Your task to perform on an android device: Play the last video I watched on Youtube Image 0: 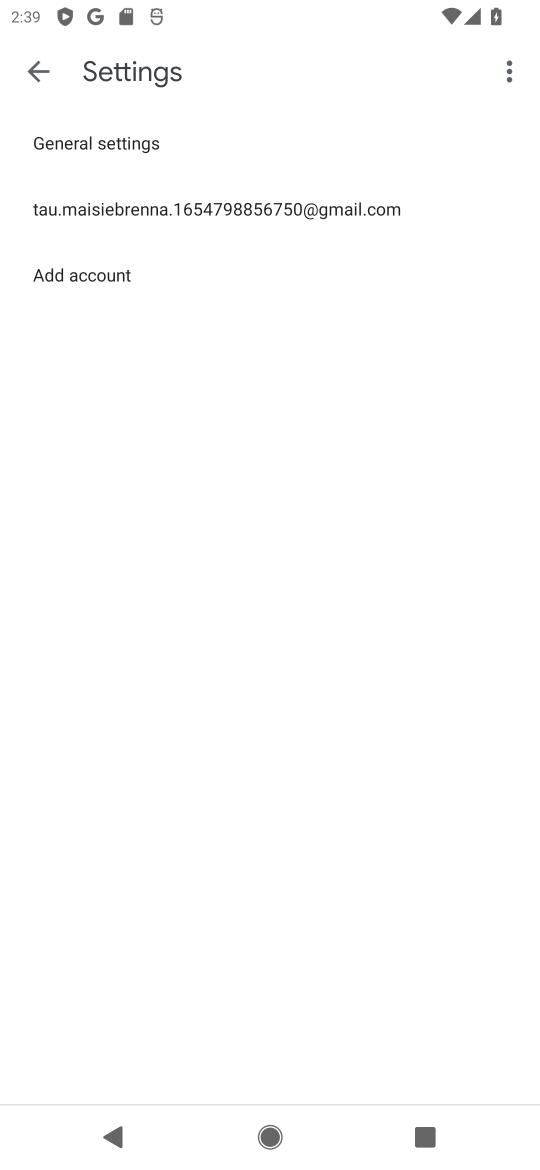
Step 0: press home button
Your task to perform on an android device: Play the last video I watched on Youtube Image 1: 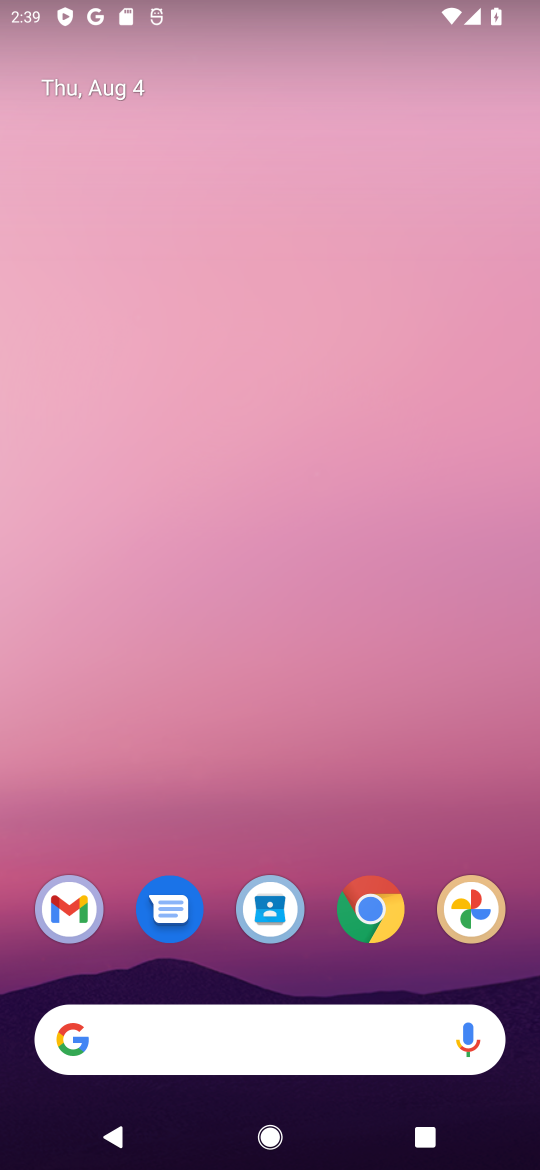
Step 1: drag from (334, 994) to (437, 229)
Your task to perform on an android device: Play the last video I watched on Youtube Image 2: 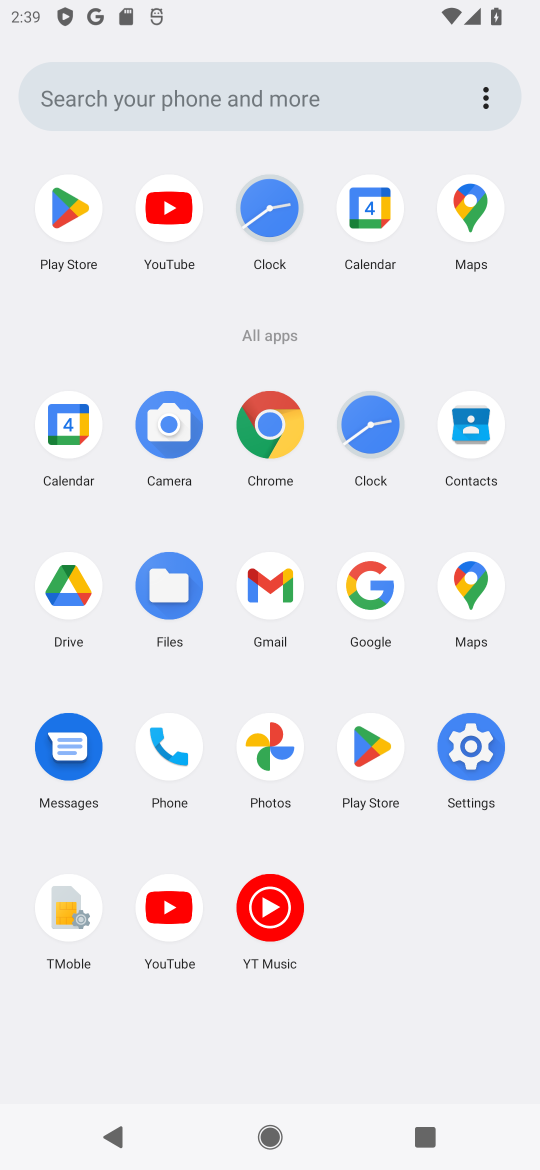
Step 2: click (170, 904)
Your task to perform on an android device: Play the last video I watched on Youtube Image 3: 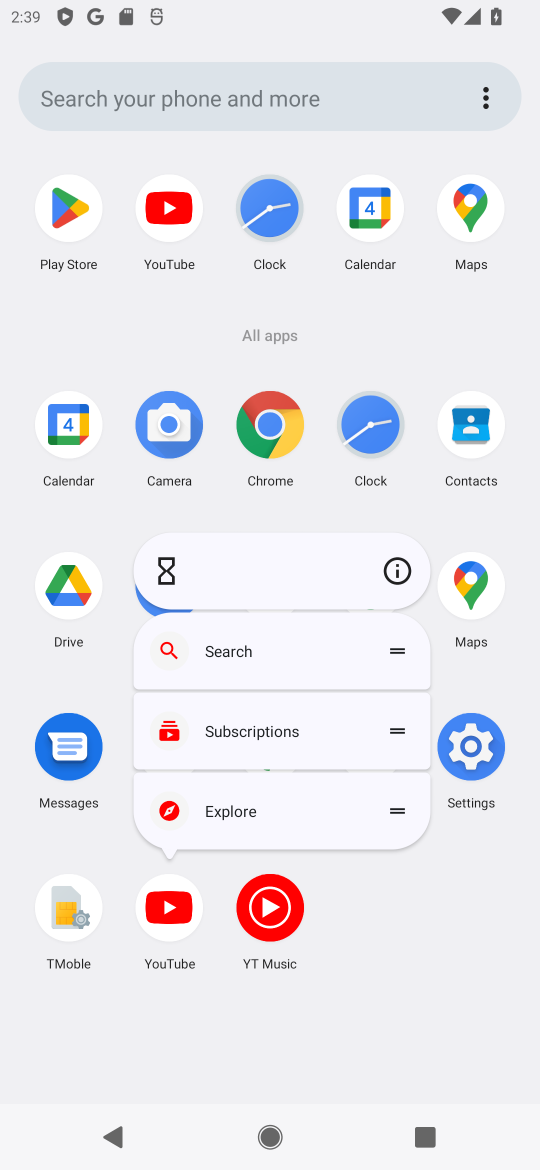
Step 3: click (166, 912)
Your task to perform on an android device: Play the last video I watched on Youtube Image 4: 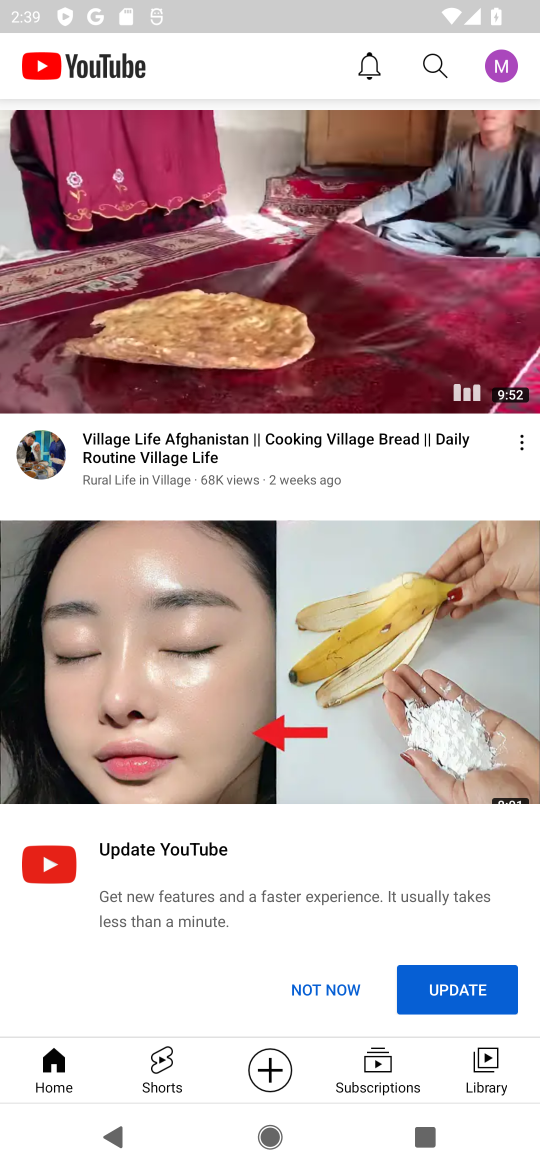
Step 4: click (495, 1064)
Your task to perform on an android device: Play the last video I watched on Youtube Image 5: 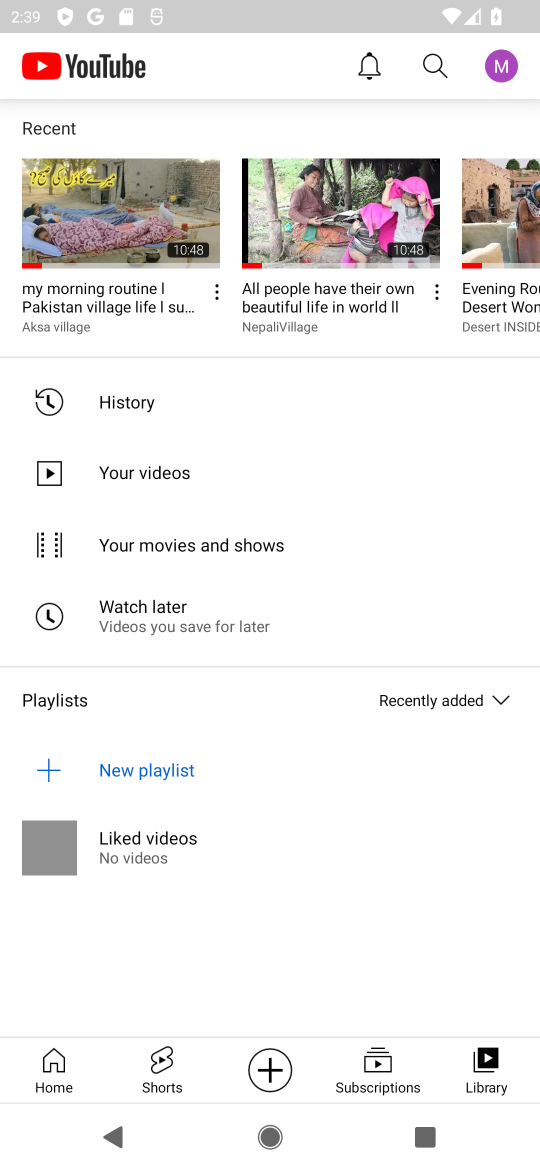
Step 5: click (131, 221)
Your task to perform on an android device: Play the last video I watched on Youtube Image 6: 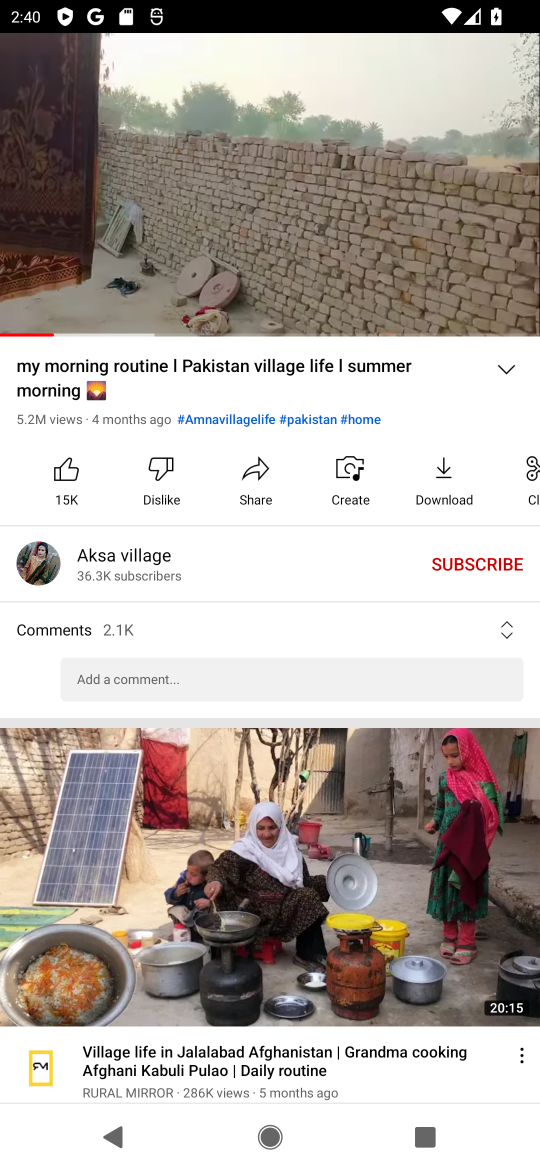
Step 6: task complete